Your task to perform on an android device: Open Google Chrome and click the shortcut for Amazon.com Image 0: 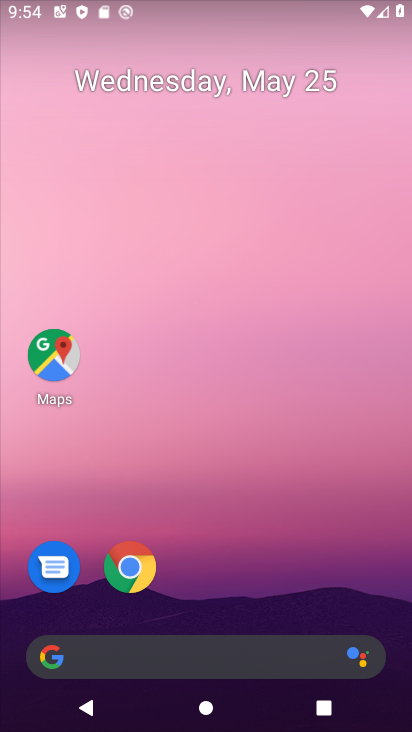
Step 0: click (131, 562)
Your task to perform on an android device: Open Google Chrome and click the shortcut for Amazon.com Image 1: 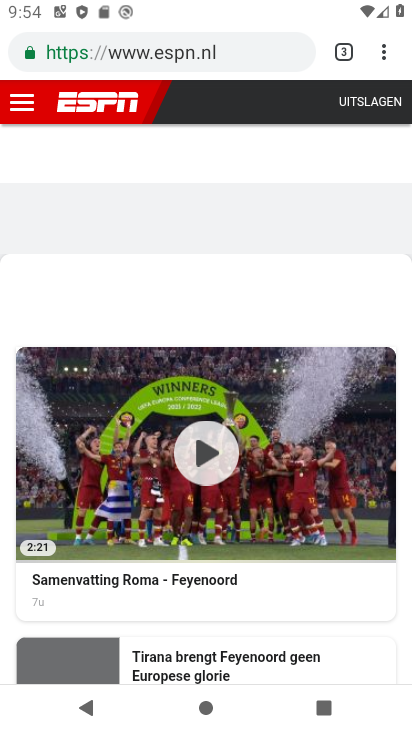
Step 1: click (336, 52)
Your task to perform on an android device: Open Google Chrome and click the shortcut for Amazon.com Image 2: 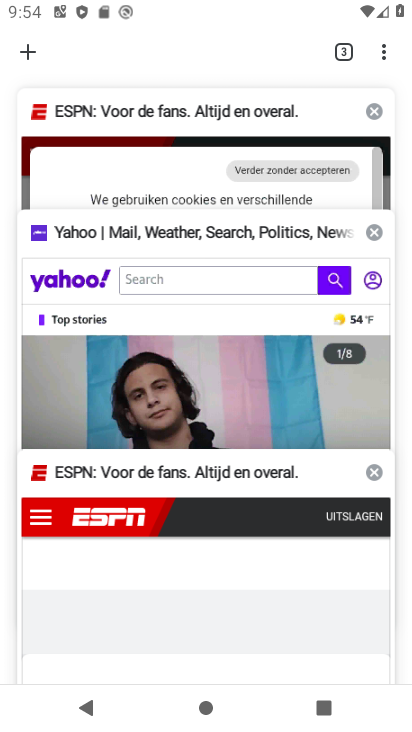
Step 2: click (29, 56)
Your task to perform on an android device: Open Google Chrome and click the shortcut for Amazon.com Image 3: 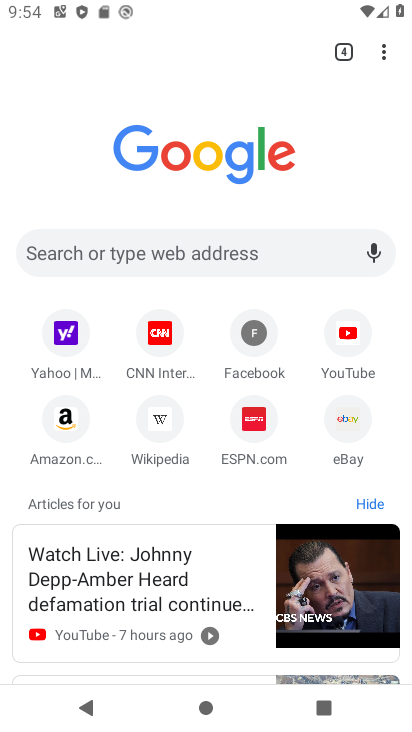
Step 3: click (79, 405)
Your task to perform on an android device: Open Google Chrome and click the shortcut for Amazon.com Image 4: 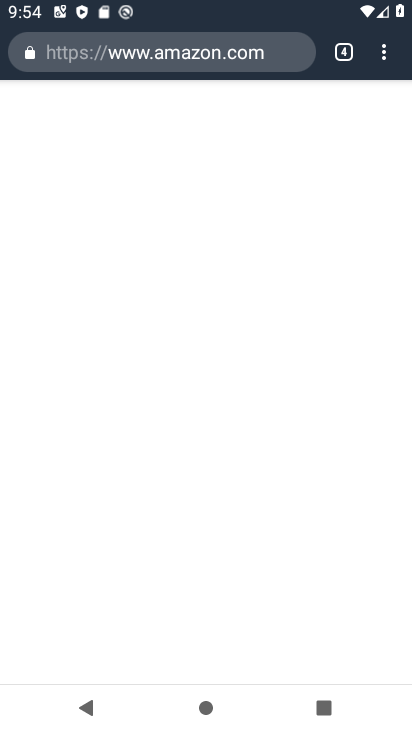
Step 4: task complete